Your task to perform on an android device: check data usage Image 0: 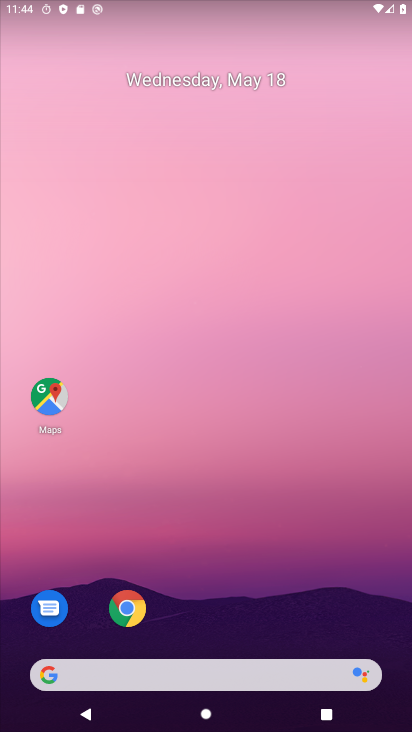
Step 0: drag from (295, 616) to (244, 47)
Your task to perform on an android device: check data usage Image 1: 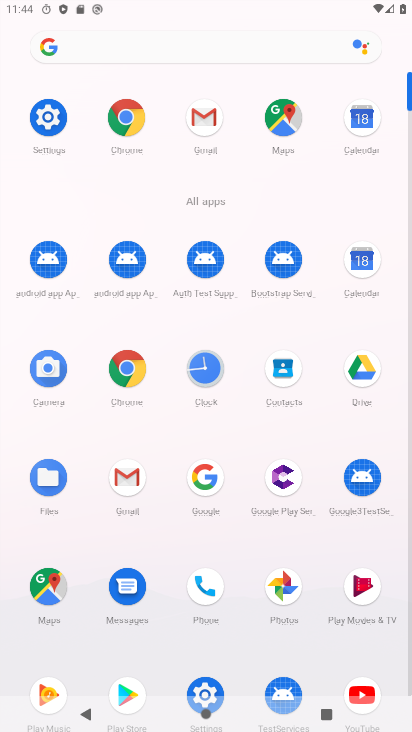
Step 1: click (45, 116)
Your task to perform on an android device: check data usage Image 2: 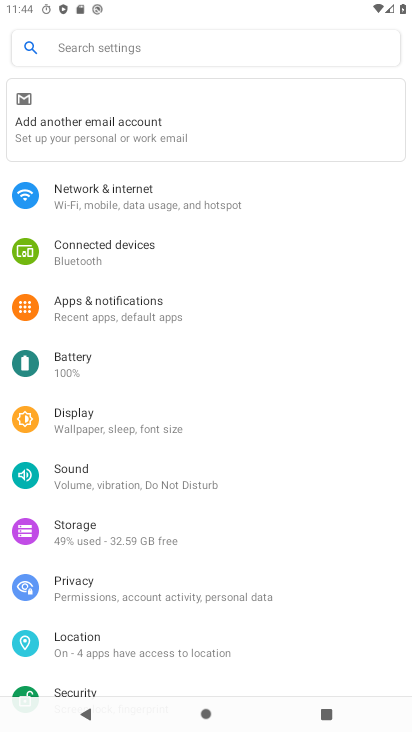
Step 2: click (119, 192)
Your task to perform on an android device: check data usage Image 3: 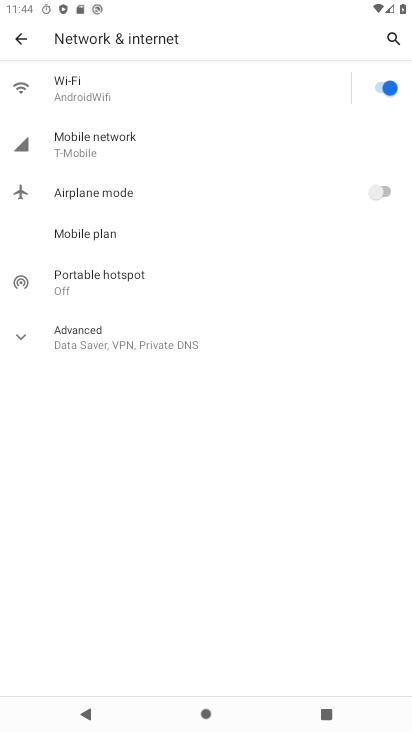
Step 3: click (169, 85)
Your task to perform on an android device: check data usage Image 4: 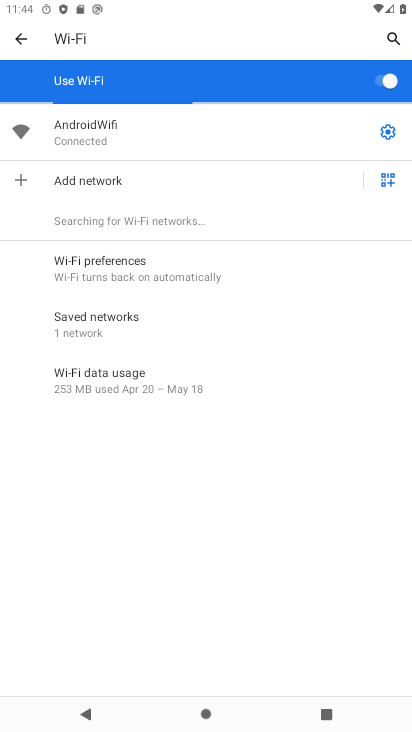
Step 4: click (171, 372)
Your task to perform on an android device: check data usage Image 5: 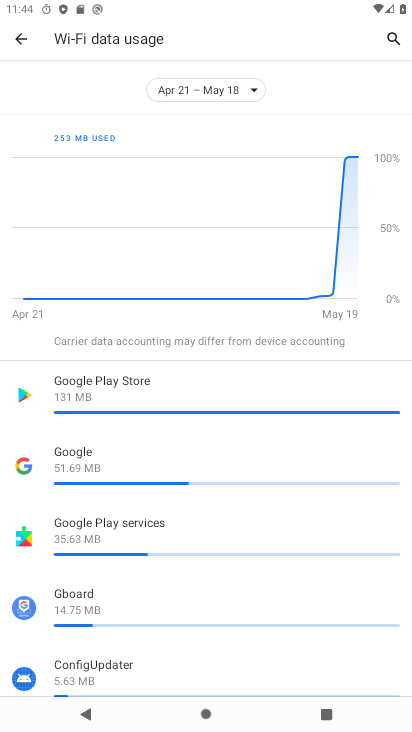
Step 5: task complete